Your task to perform on an android device: What's on my calendar tomorrow? Image 0: 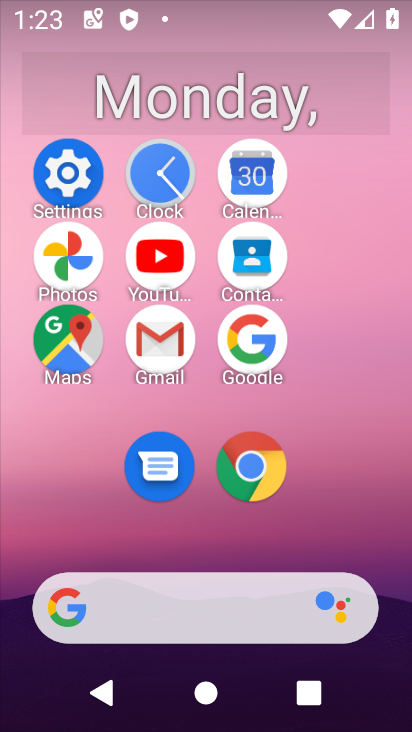
Step 0: click (269, 169)
Your task to perform on an android device: What's on my calendar tomorrow? Image 1: 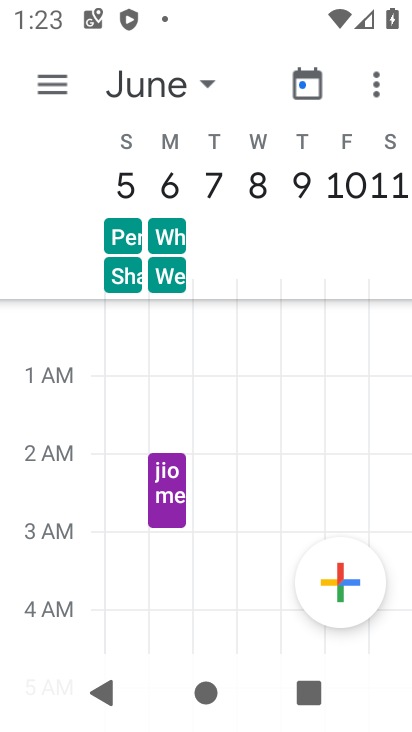
Step 1: drag from (124, 181) to (396, 228)
Your task to perform on an android device: What's on my calendar tomorrow? Image 2: 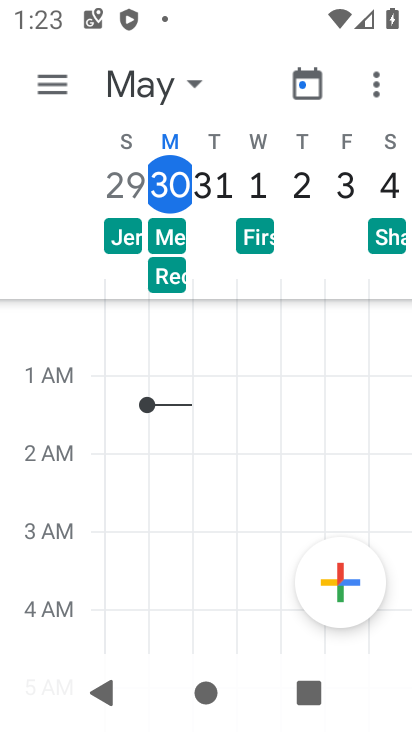
Step 2: click (219, 190)
Your task to perform on an android device: What's on my calendar tomorrow? Image 3: 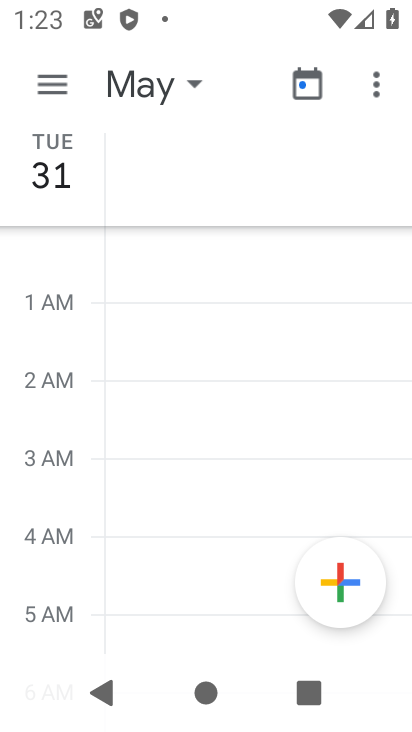
Step 3: task complete